Your task to perform on an android device: Open Chrome and go to settings Image 0: 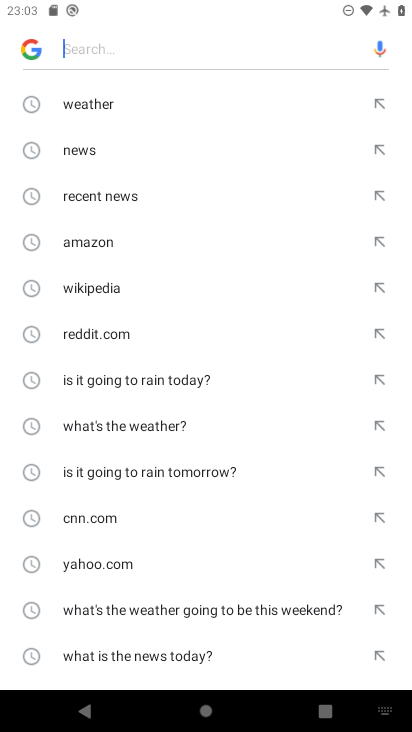
Step 0: press back button
Your task to perform on an android device: Open Chrome and go to settings Image 1: 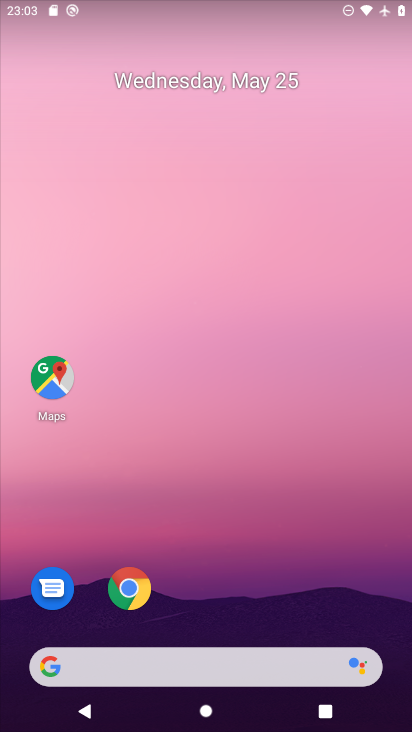
Step 1: click (127, 589)
Your task to perform on an android device: Open Chrome and go to settings Image 2: 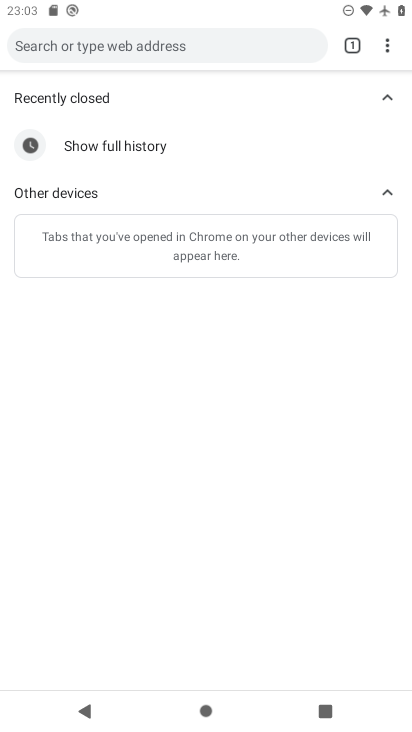
Step 2: click (127, 589)
Your task to perform on an android device: Open Chrome and go to settings Image 3: 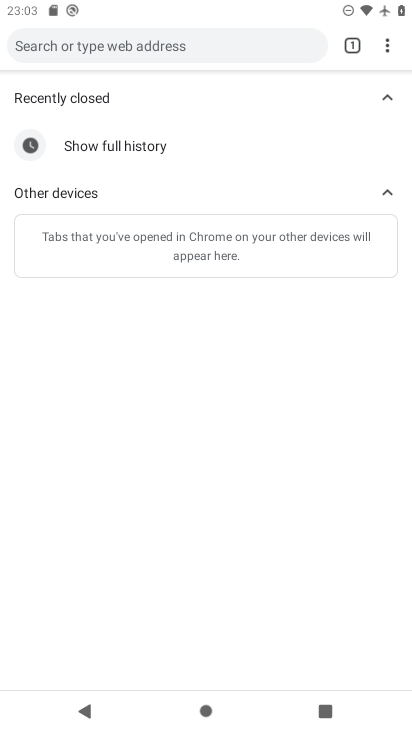
Step 3: click (391, 40)
Your task to perform on an android device: Open Chrome and go to settings Image 4: 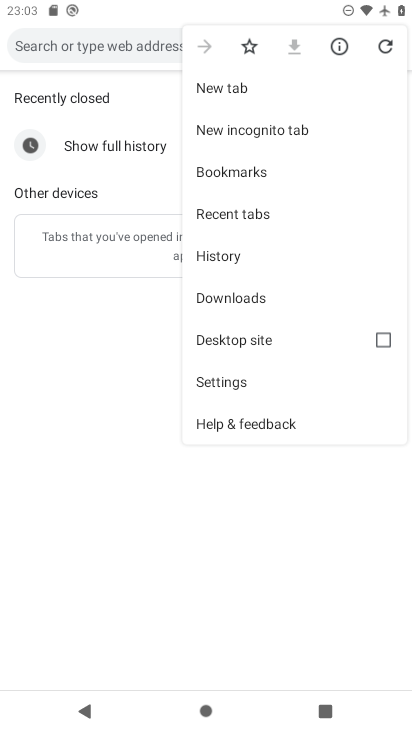
Step 4: click (201, 383)
Your task to perform on an android device: Open Chrome and go to settings Image 5: 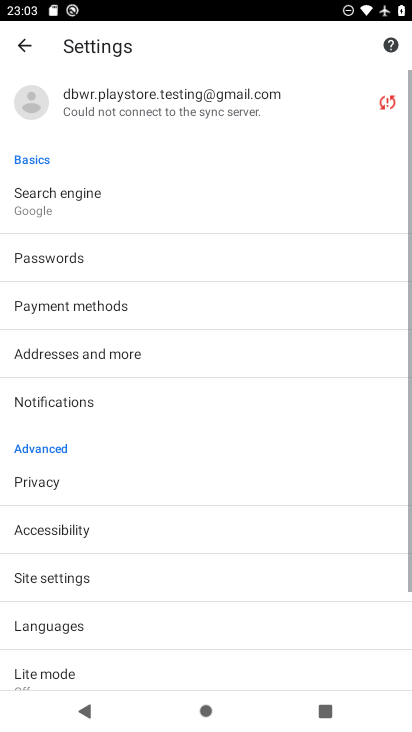
Step 5: task complete